Your task to perform on an android device: Empty the shopping cart on newegg.com. Image 0: 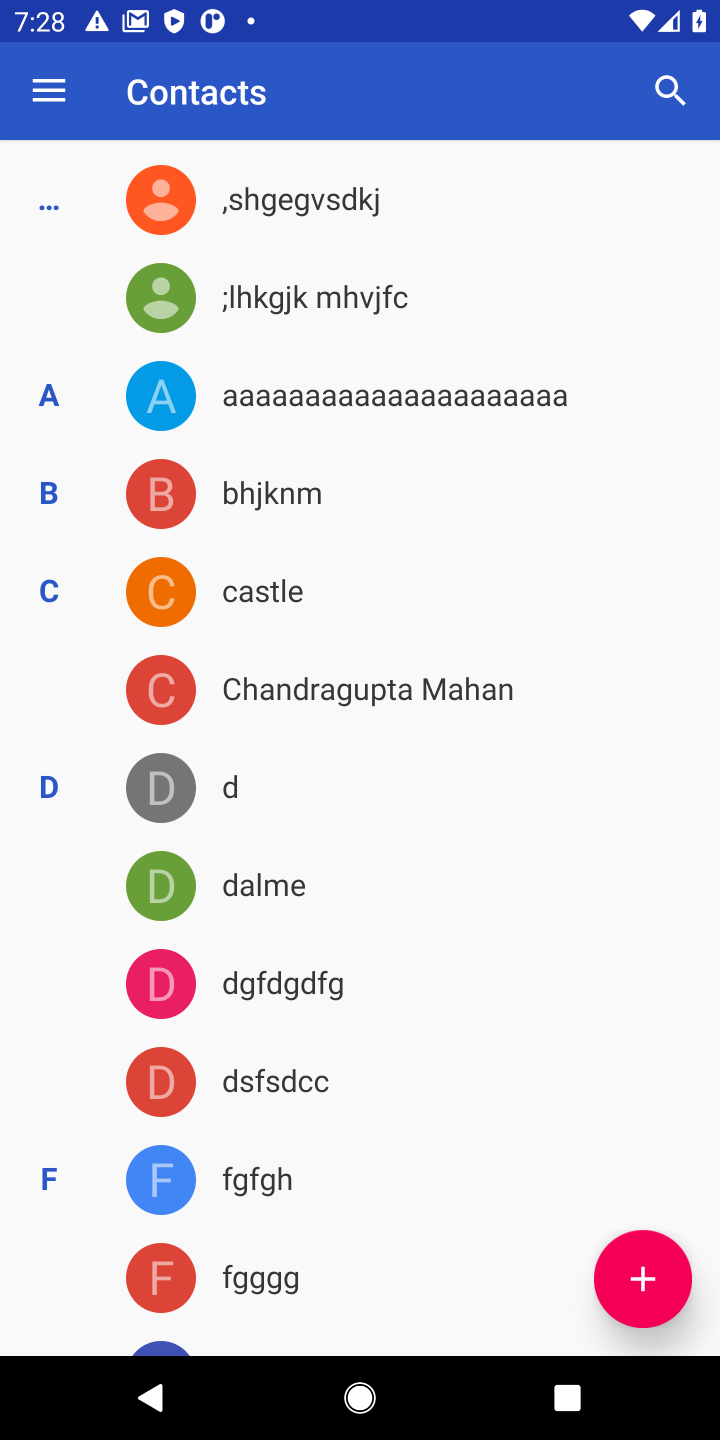
Step 0: press home button
Your task to perform on an android device: Empty the shopping cart on newegg.com. Image 1: 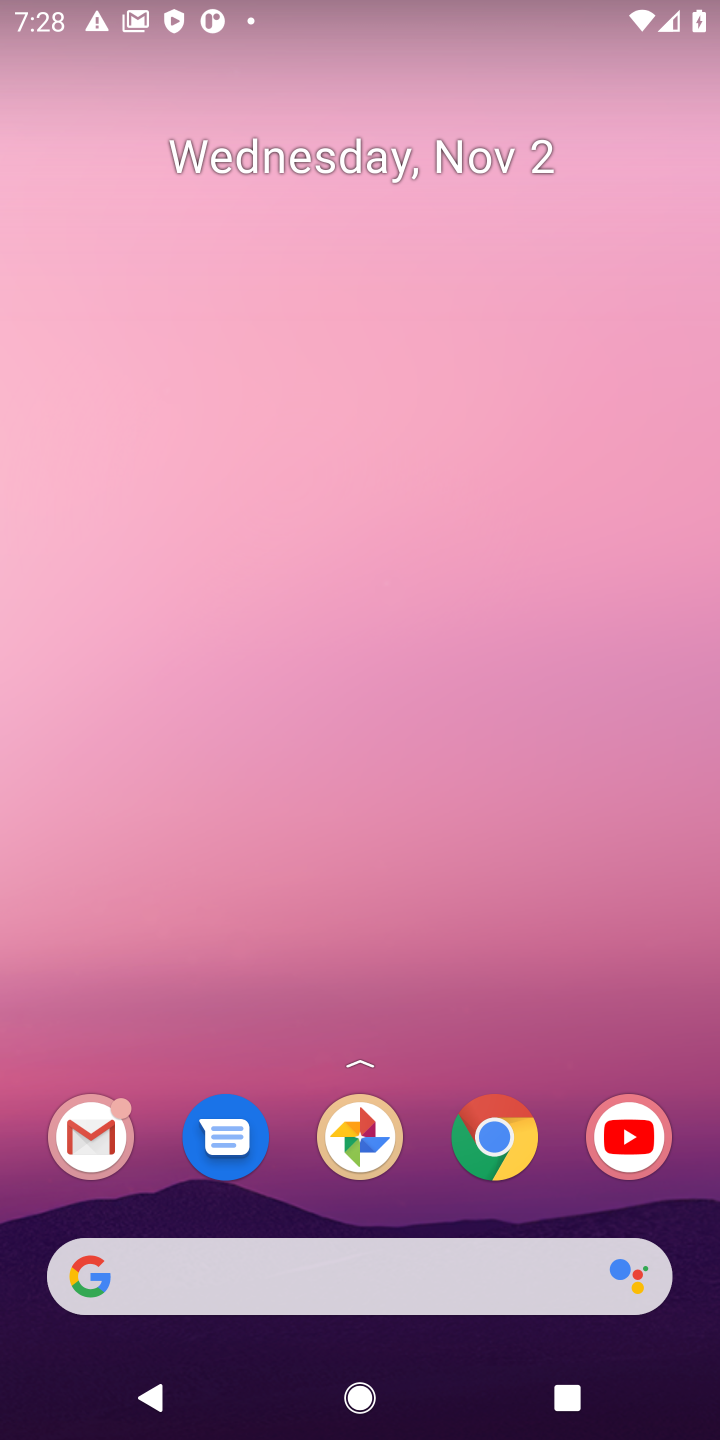
Step 1: click (487, 1144)
Your task to perform on an android device: Empty the shopping cart on newegg.com. Image 2: 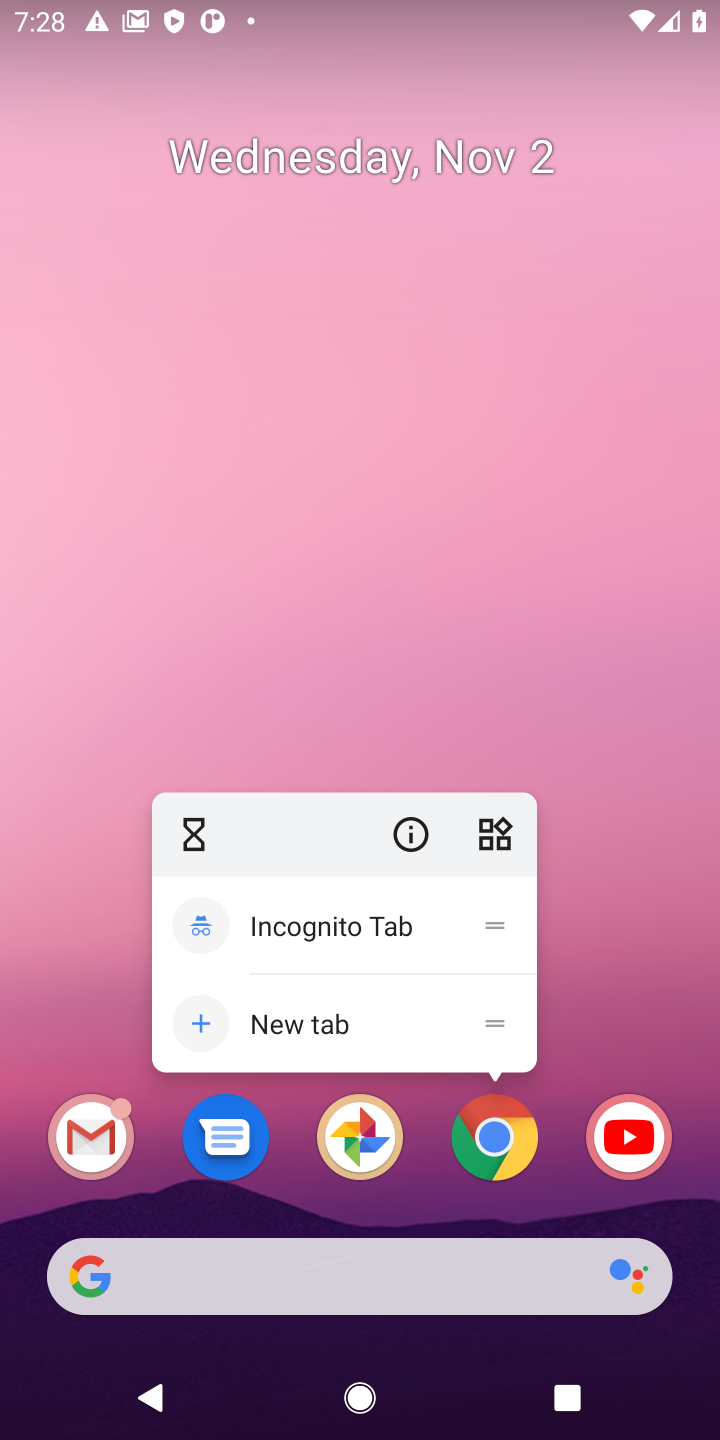
Step 2: click (496, 1134)
Your task to perform on an android device: Empty the shopping cart on newegg.com. Image 3: 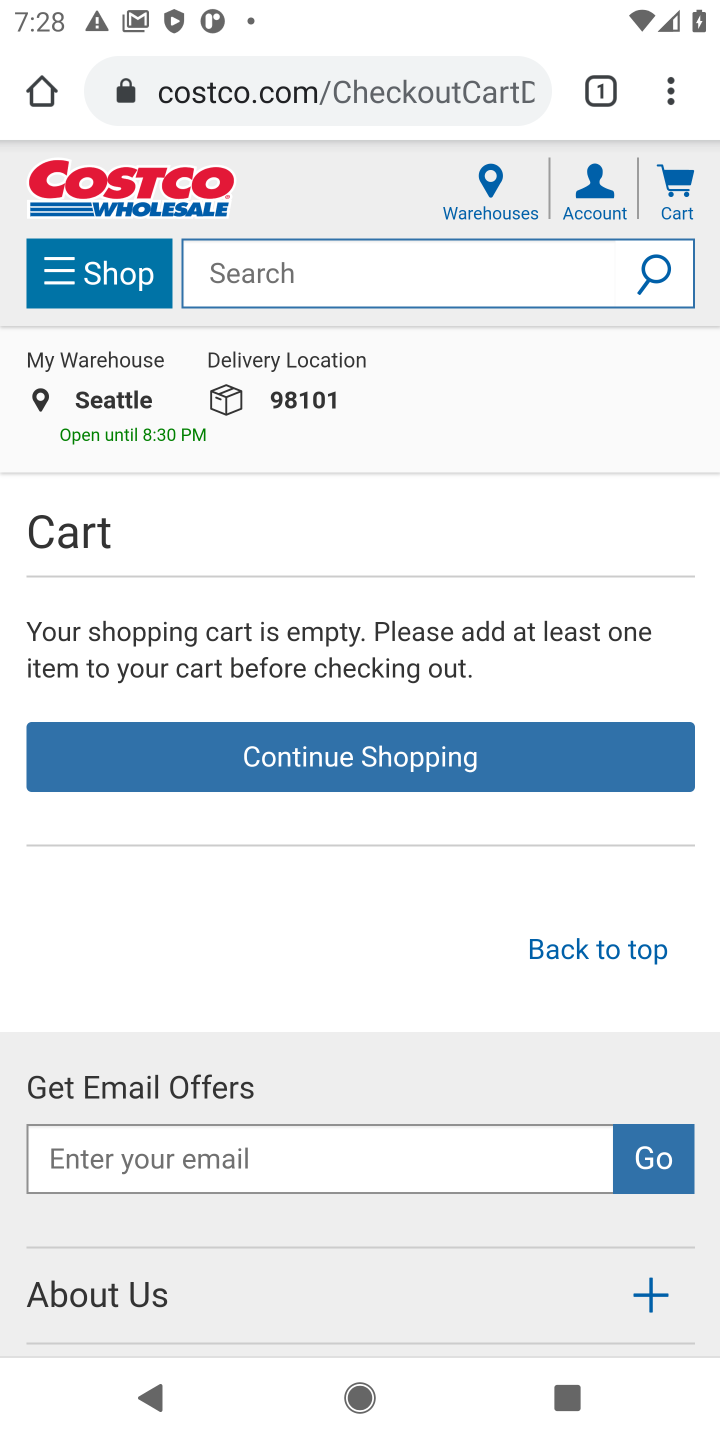
Step 3: click (474, 53)
Your task to perform on an android device: Empty the shopping cart on newegg.com. Image 4: 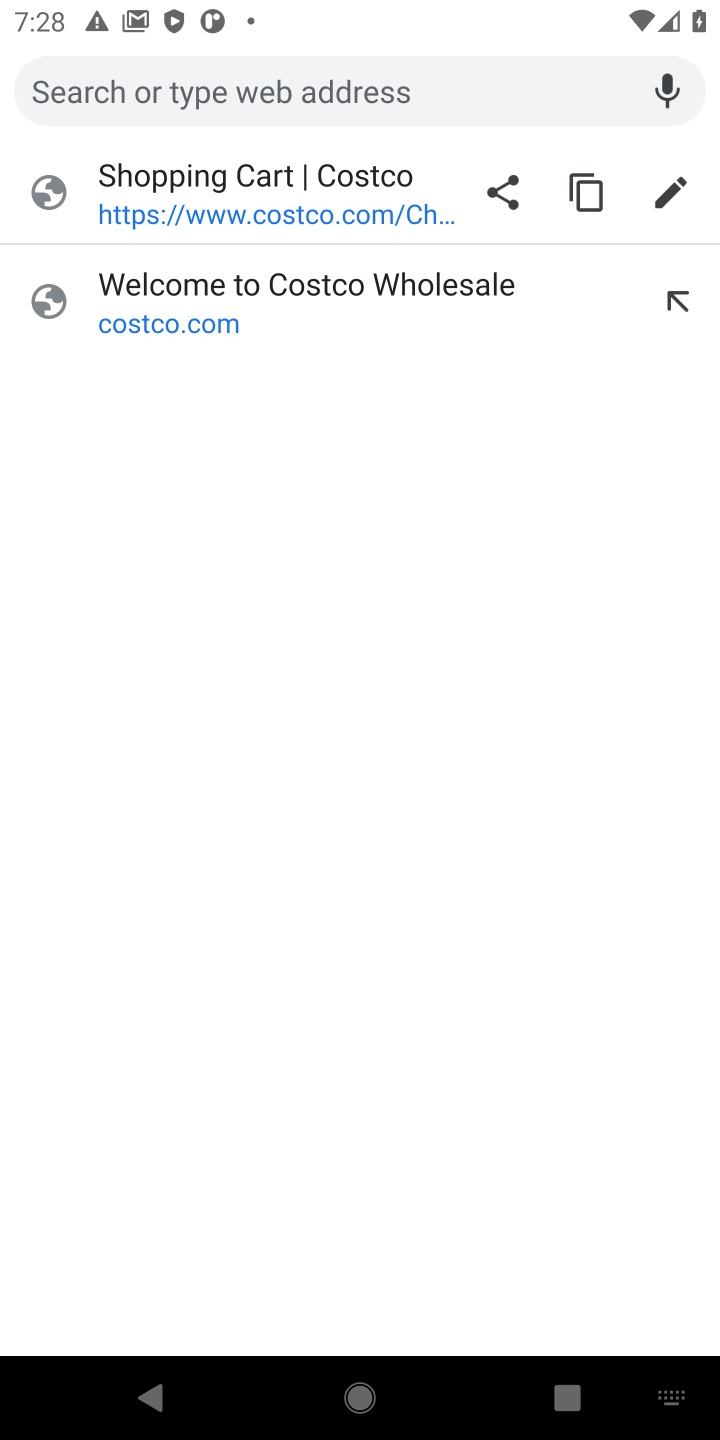
Step 4: type "newegg.com"
Your task to perform on an android device: Empty the shopping cart on newegg.com. Image 5: 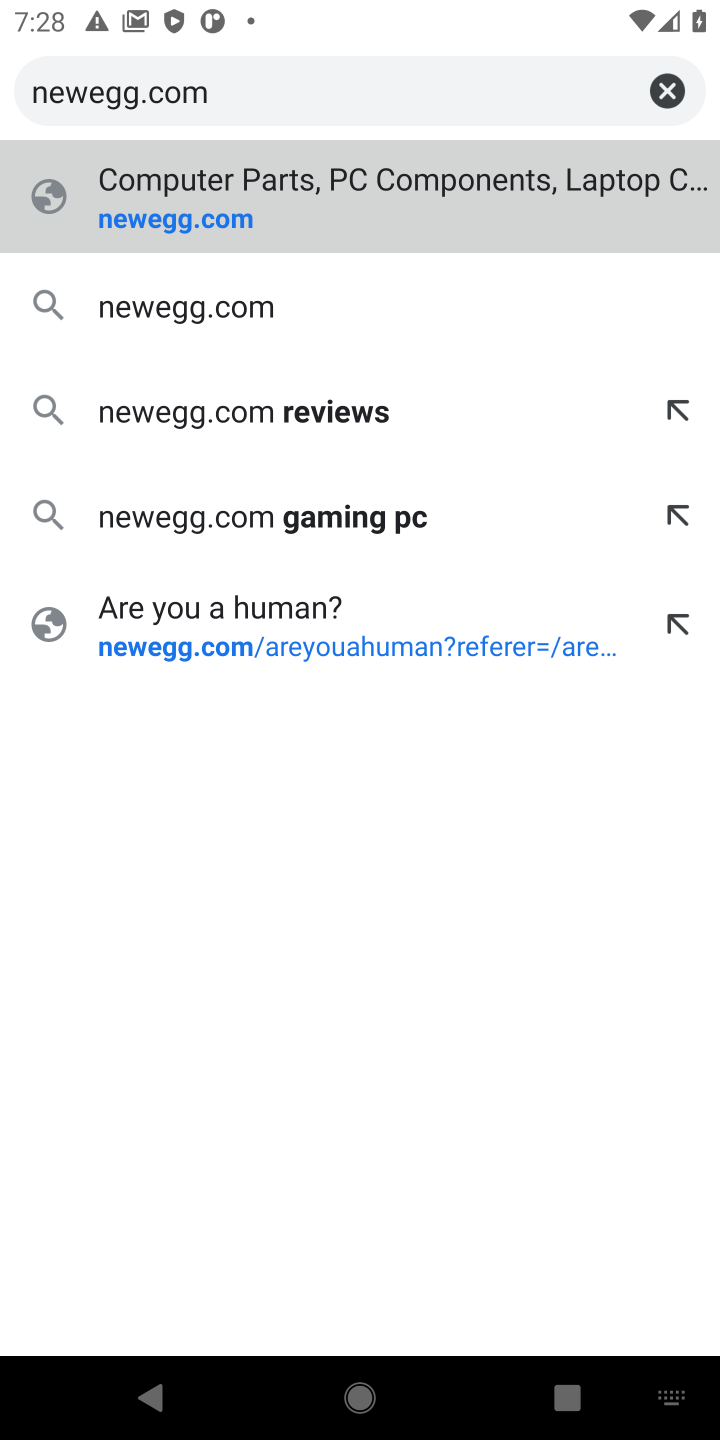
Step 5: click (189, 312)
Your task to perform on an android device: Empty the shopping cart on newegg.com. Image 6: 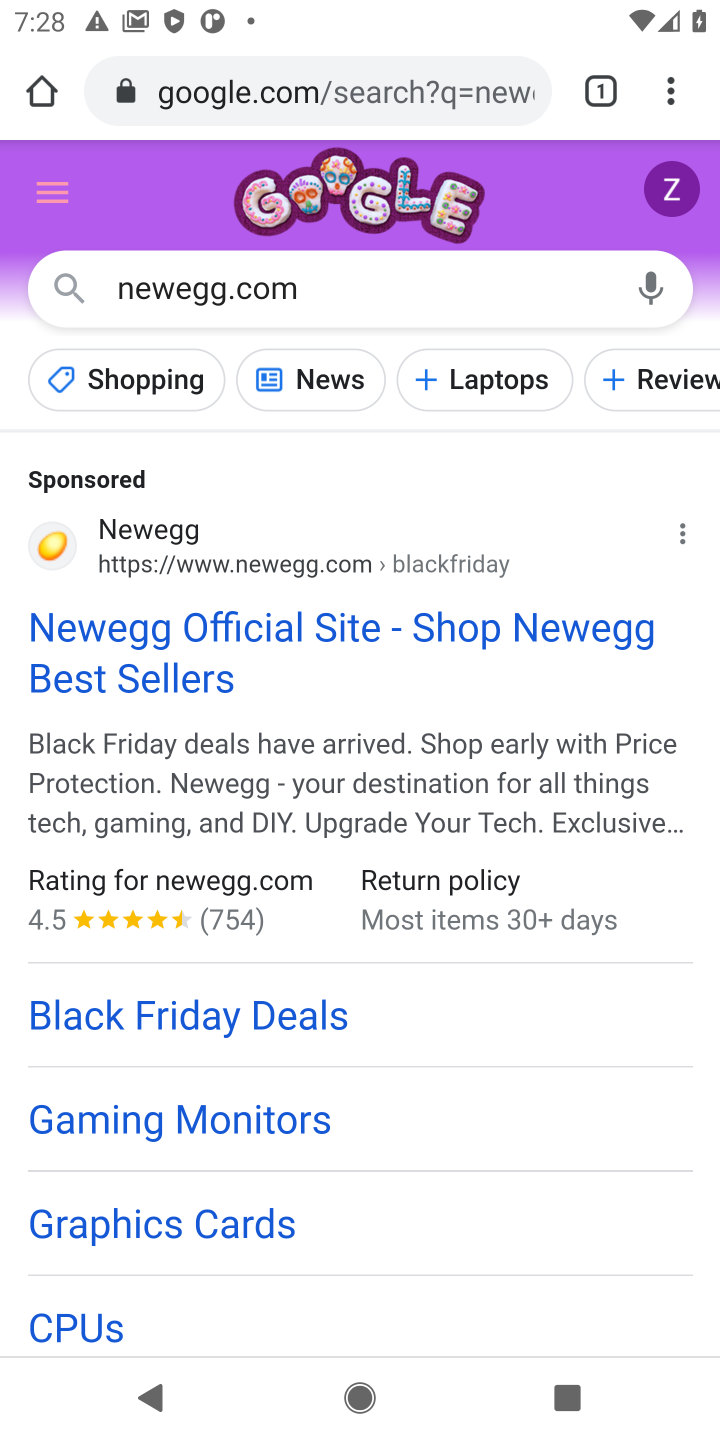
Step 6: click (147, 635)
Your task to perform on an android device: Empty the shopping cart on newegg.com. Image 7: 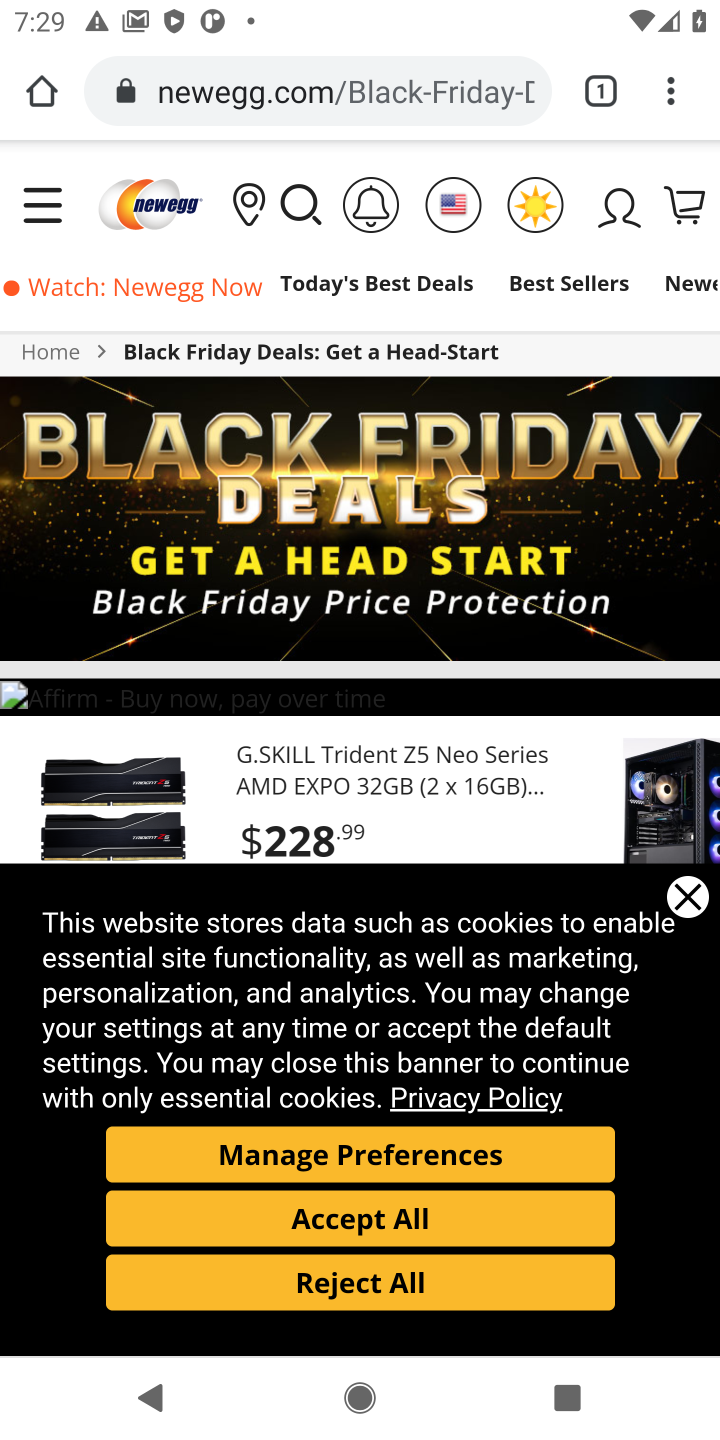
Step 7: click (346, 1218)
Your task to perform on an android device: Empty the shopping cart on newegg.com. Image 8: 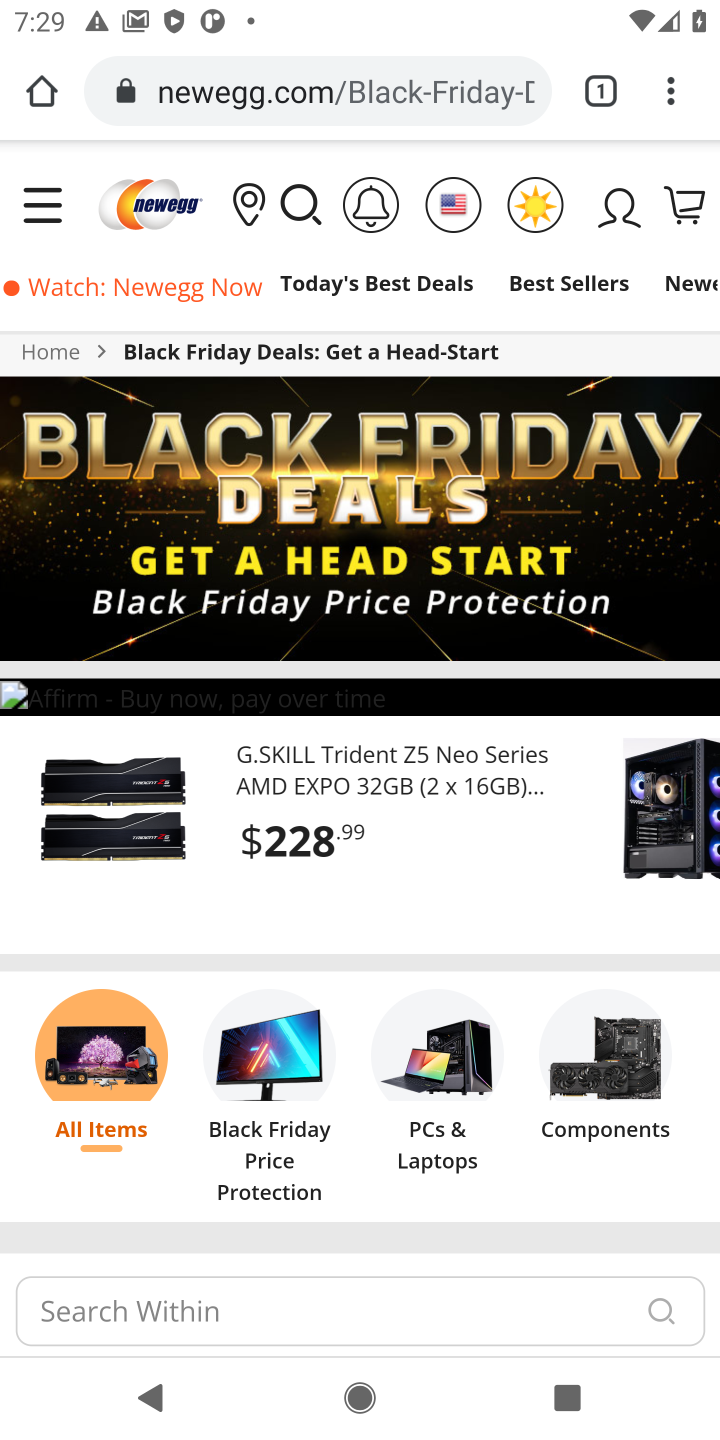
Step 8: click (691, 204)
Your task to perform on an android device: Empty the shopping cart on newegg.com. Image 9: 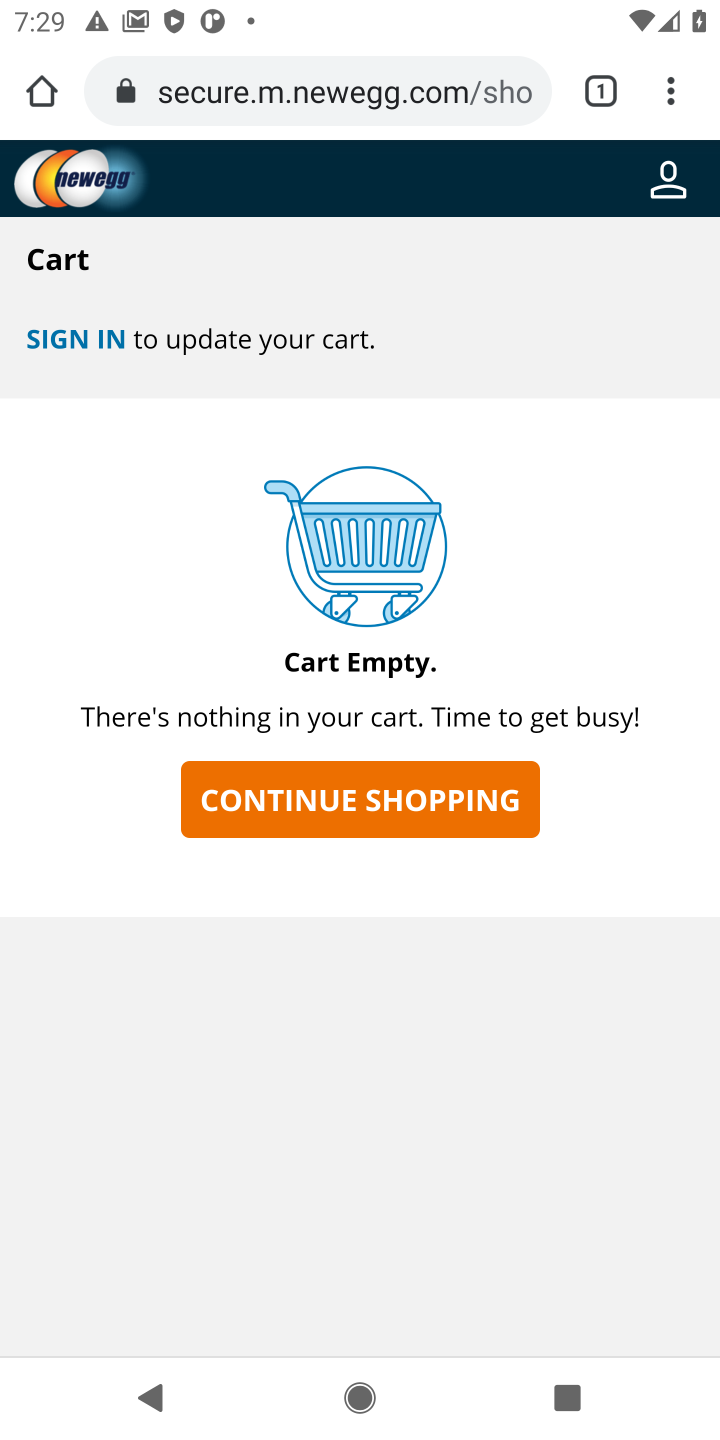
Step 9: task complete